Your task to perform on an android device: set the stopwatch Image 0: 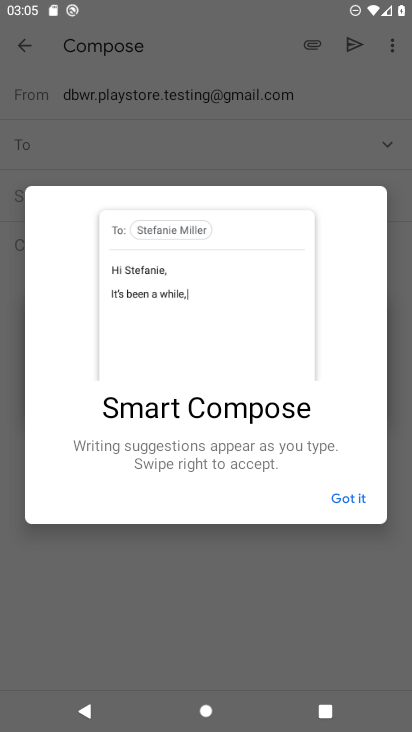
Step 0: press home button
Your task to perform on an android device: set the stopwatch Image 1: 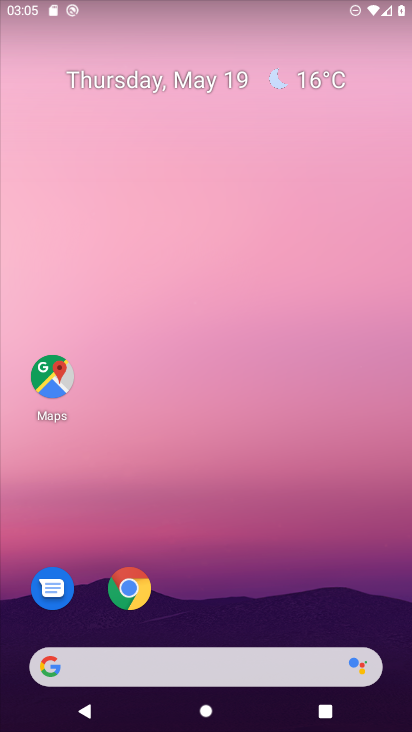
Step 1: drag from (260, 635) to (197, 0)
Your task to perform on an android device: set the stopwatch Image 2: 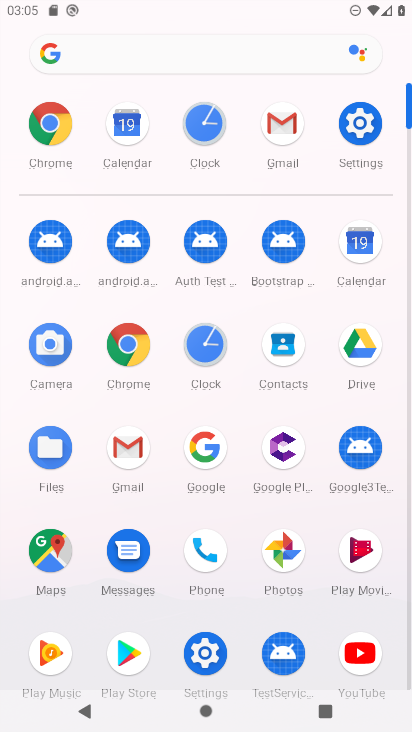
Step 2: click (209, 136)
Your task to perform on an android device: set the stopwatch Image 3: 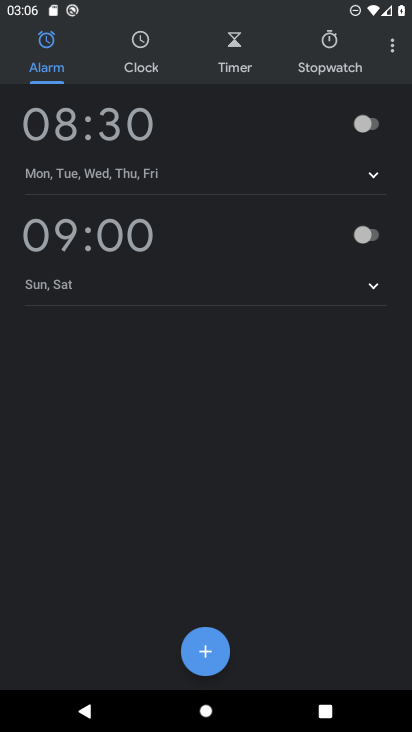
Step 3: click (320, 66)
Your task to perform on an android device: set the stopwatch Image 4: 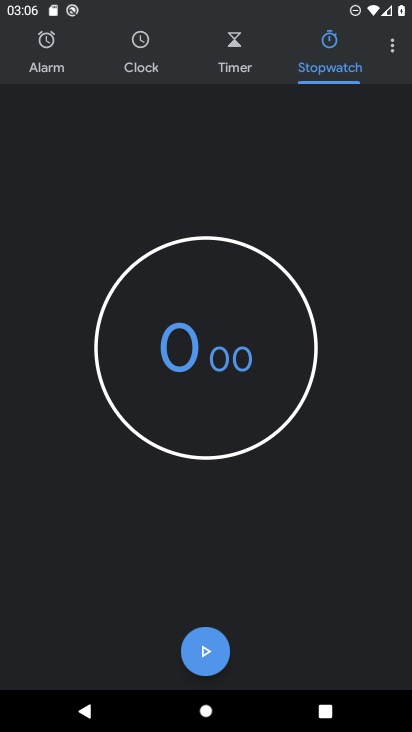
Step 4: click (196, 662)
Your task to perform on an android device: set the stopwatch Image 5: 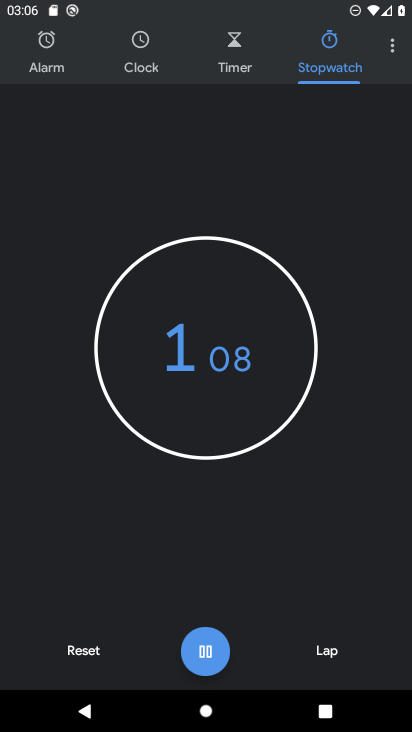
Step 5: click (196, 662)
Your task to perform on an android device: set the stopwatch Image 6: 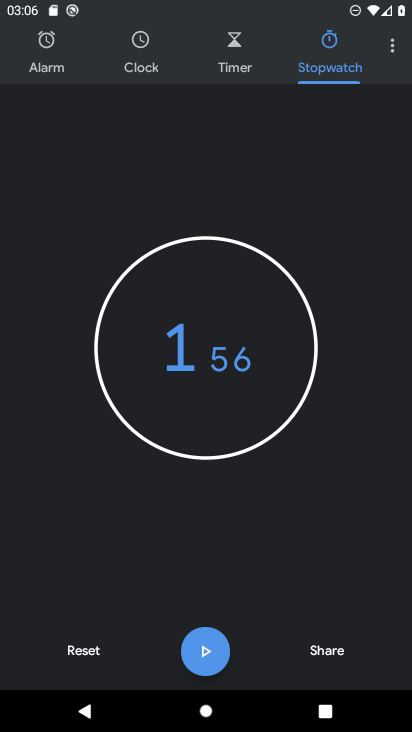
Step 6: task complete